Your task to perform on an android device: Go to eBay Image 0: 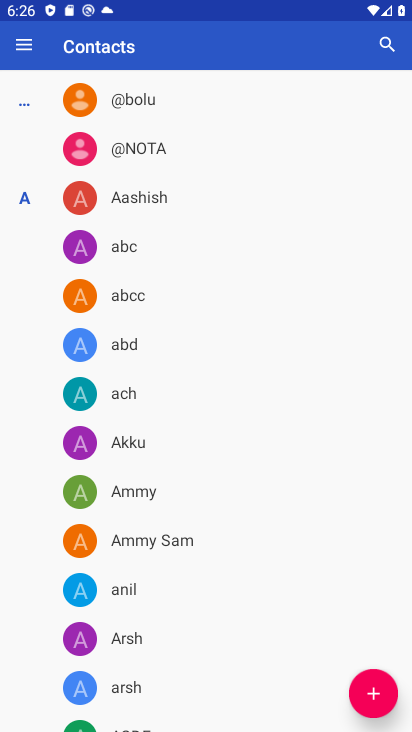
Step 0: press home button
Your task to perform on an android device: Go to eBay Image 1: 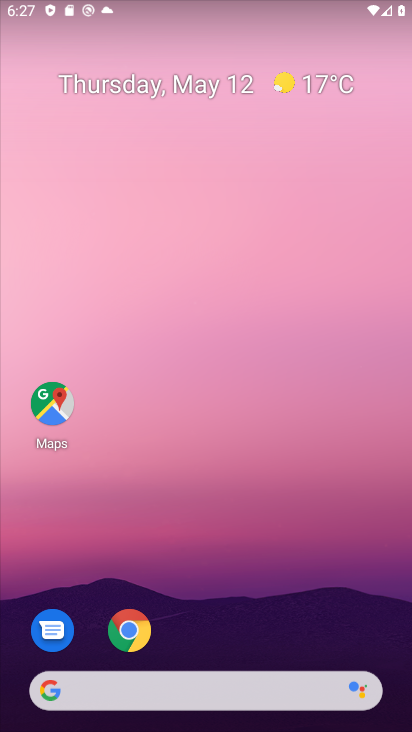
Step 1: drag from (286, 628) to (302, 81)
Your task to perform on an android device: Go to eBay Image 2: 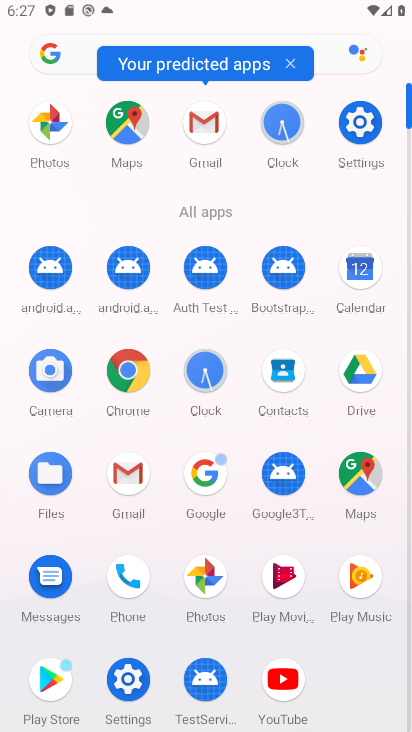
Step 2: click (130, 367)
Your task to perform on an android device: Go to eBay Image 3: 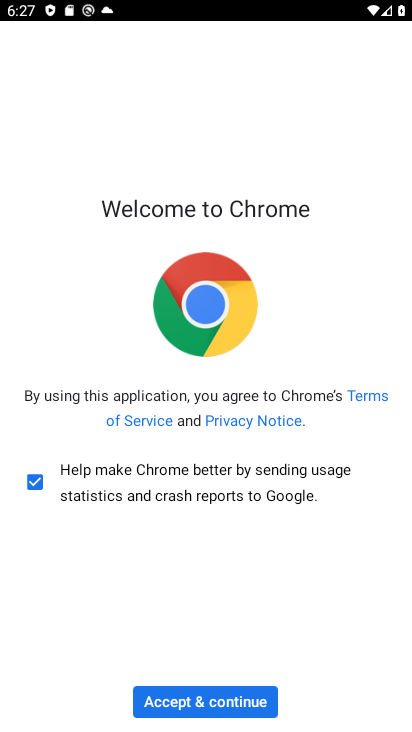
Step 3: click (234, 702)
Your task to perform on an android device: Go to eBay Image 4: 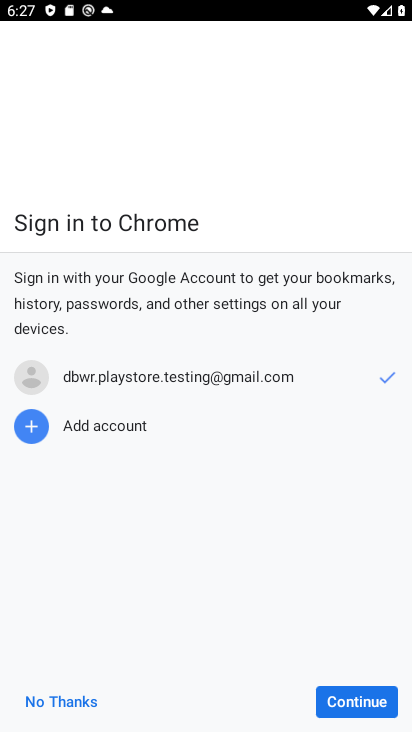
Step 4: click (372, 711)
Your task to perform on an android device: Go to eBay Image 5: 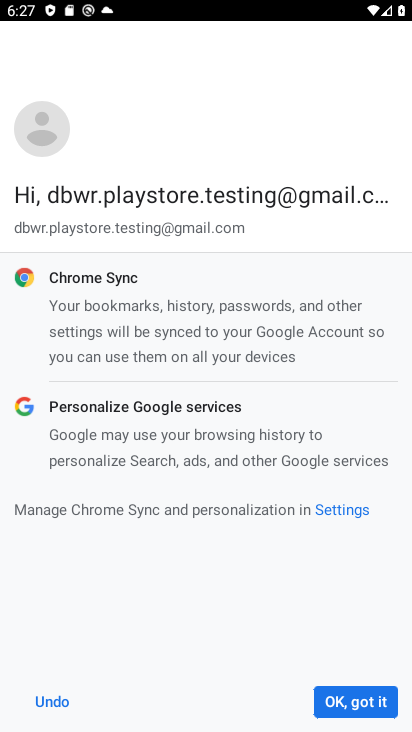
Step 5: click (367, 706)
Your task to perform on an android device: Go to eBay Image 6: 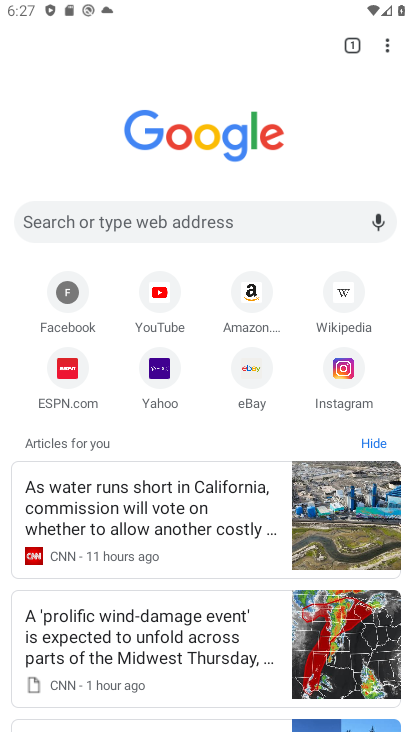
Step 6: click (97, 222)
Your task to perform on an android device: Go to eBay Image 7: 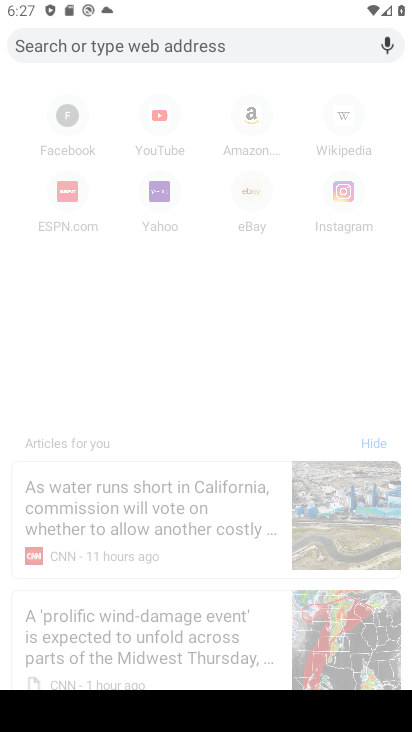
Step 7: type "ebay"
Your task to perform on an android device: Go to eBay Image 8: 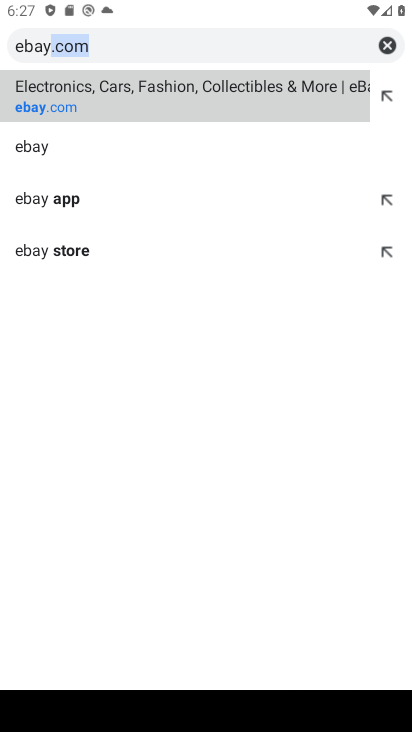
Step 8: click (287, 104)
Your task to perform on an android device: Go to eBay Image 9: 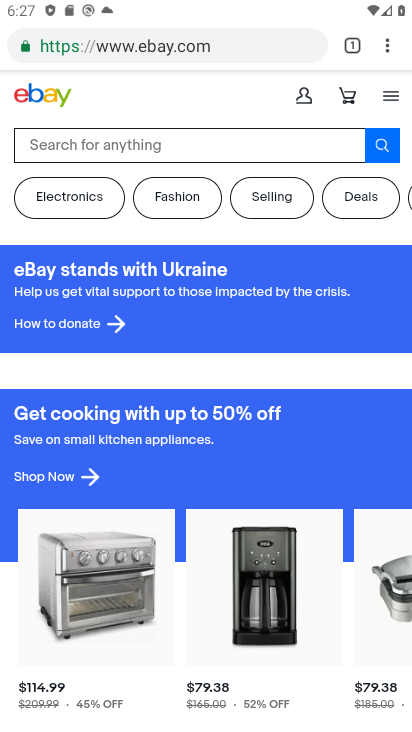
Step 9: task complete